Your task to perform on an android device: search for starred emails in the gmail app Image 0: 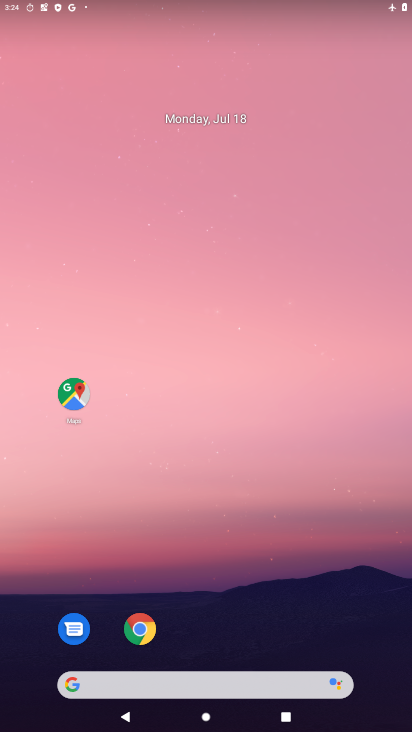
Step 0: drag from (191, 673) to (108, 39)
Your task to perform on an android device: search for starred emails in the gmail app Image 1: 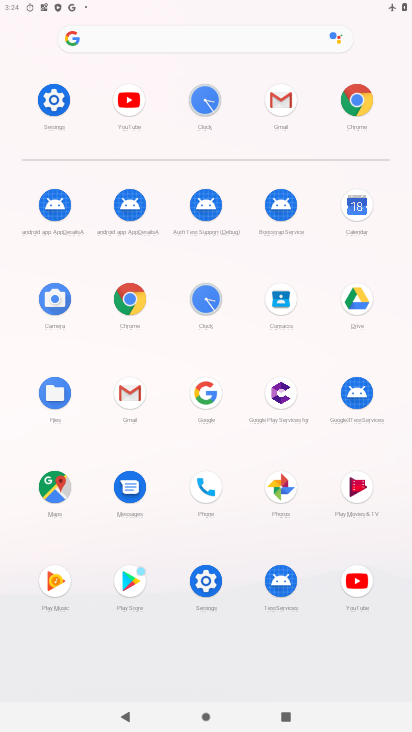
Step 1: click (132, 383)
Your task to perform on an android device: search for starred emails in the gmail app Image 2: 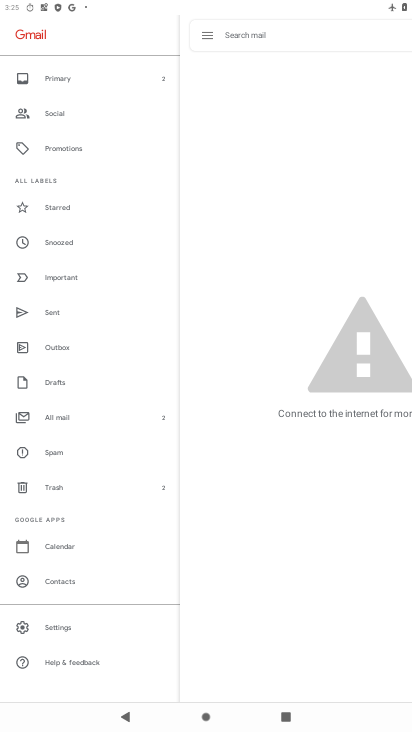
Step 2: click (41, 209)
Your task to perform on an android device: search for starred emails in the gmail app Image 3: 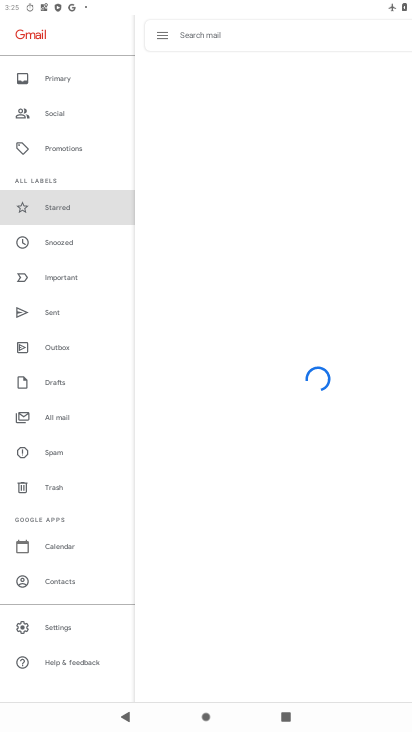
Step 3: task complete